Your task to perform on an android device: install app "ZOOM Cloud Meetings" Image 0: 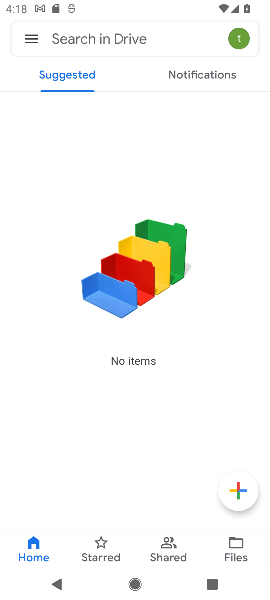
Step 0: press home button
Your task to perform on an android device: install app "ZOOM Cloud Meetings" Image 1: 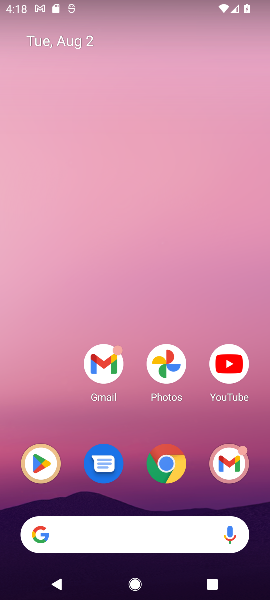
Step 1: click (38, 462)
Your task to perform on an android device: install app "ZOOM Cloud Meetings" Image 2: 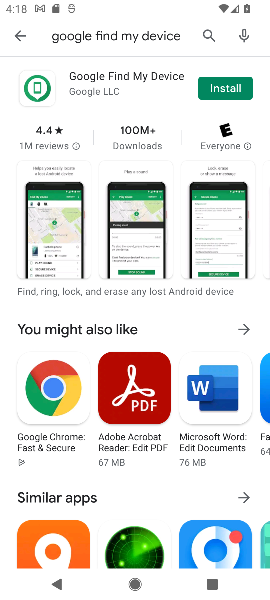
Step 2: click (205, 33)
Your task to perform on an android device: install app "ZOOM Cloud Meetings" Image 3: 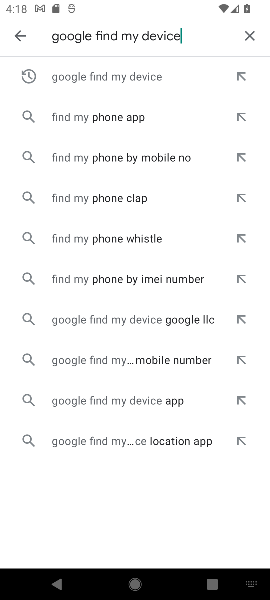
Step 3: click (246, 32)
Your task to perform on an android device: install app "ZOOM Cloud Meetings" Image 4: 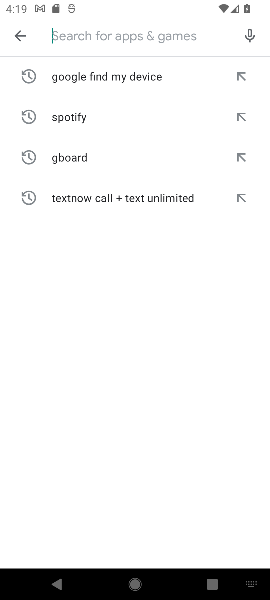
Step 4: type "ZOOM Cloud Meetings"
Your task to perform on an android device: install app "ZOOM Cloud Meetings" Image 5: 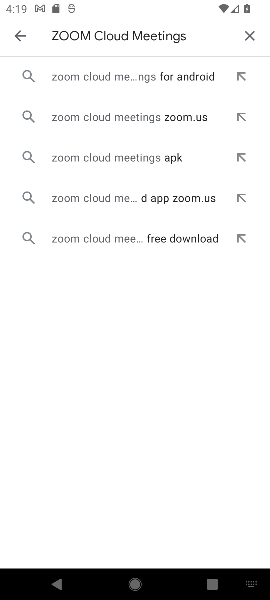
Step 5: click (144, 82)
Your task to perform on an android device: install app "ZOOM Cloud Meetings" Image 6: 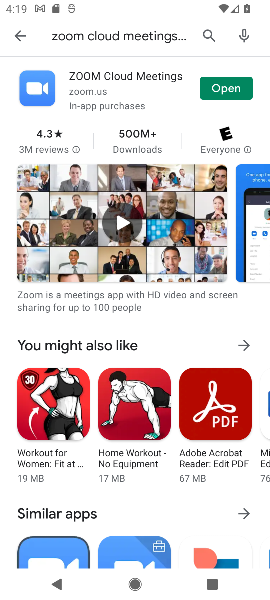
Step 6: task complete